Your task to perform on an android device: set an alarm Image 0: 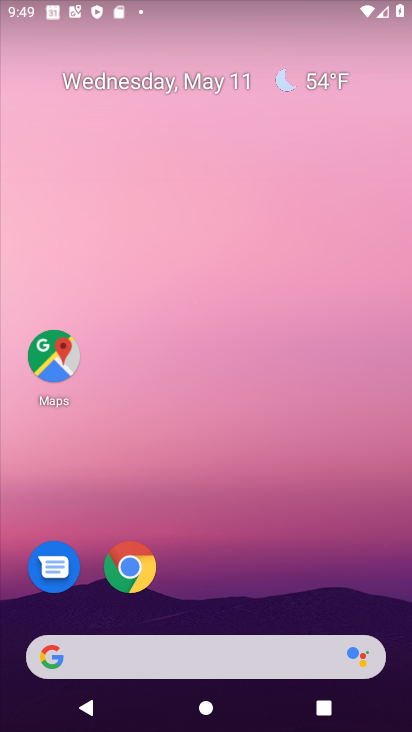
Step 0: drag from (248, 603) to (253, 331)
Your task to perform on an android device: set an alarm Image 1: 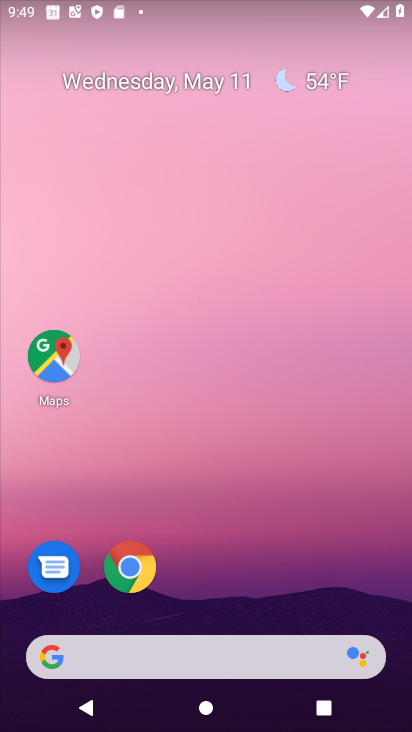
Step 1: drag from (237, 569) to (248, 49)
Your task to perform on an android device: set an alarm Image 2: 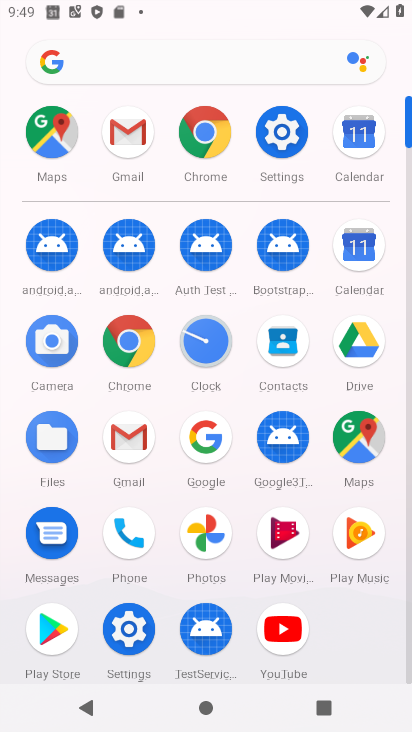
Step 2: click (203, 342)
Your task to perform on an android device: set an alarm Image 3: 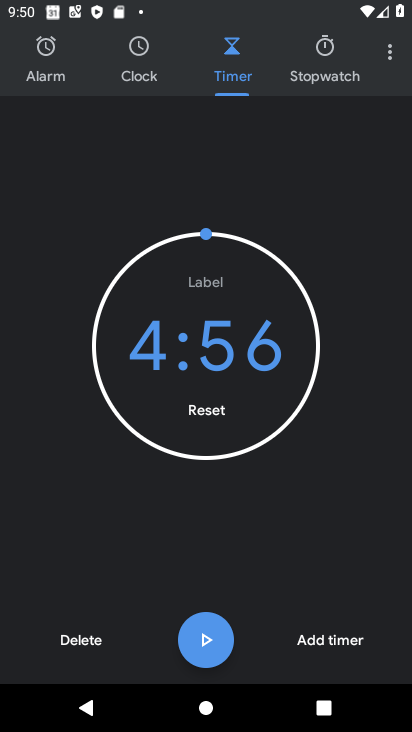
Step 3: click (58, 59)
Your task to perform on an android device: set an alarm Image 4: 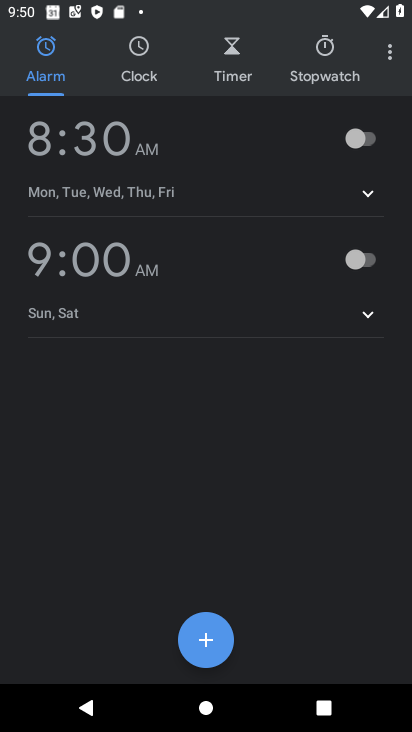
Step 4: click (110, 147)
Your task to perform on an android device: set an alarm Image 5: 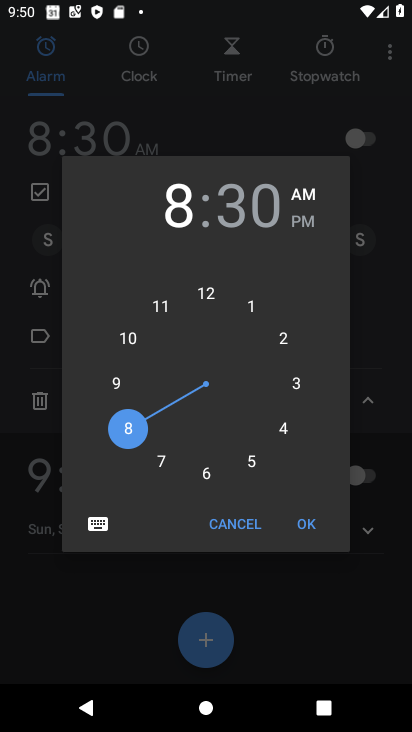
Step 5: click (160, 313)
Your task to perform on an android device: set an alarm Image 6: 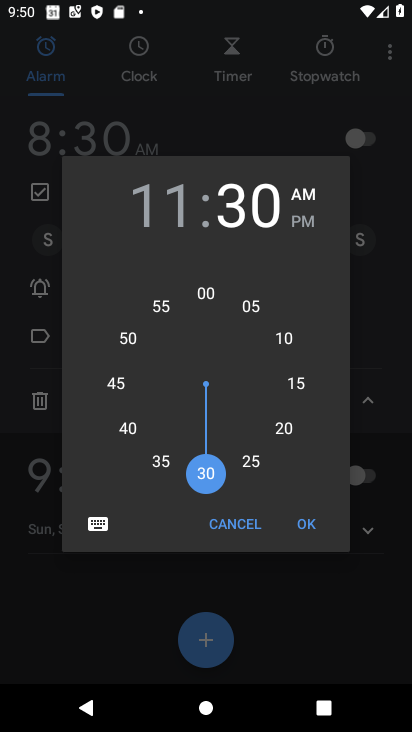
Step 6: click (280, 422)
Your task to perform on an android device: set an alarm Image 7: 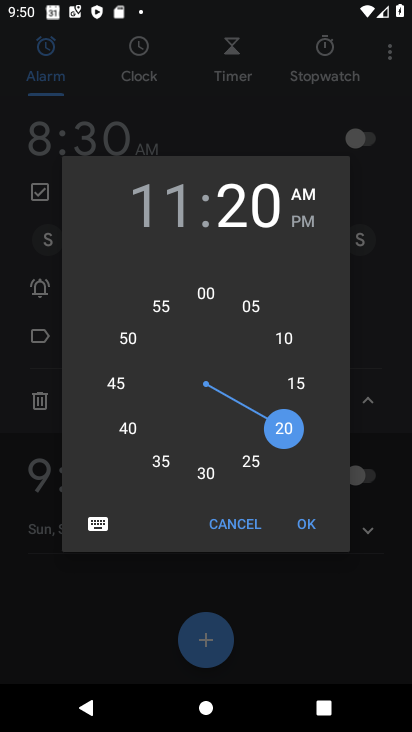
Step 7: click (307, 226)
Your task to perform on an android device: set an alarm Image 8: 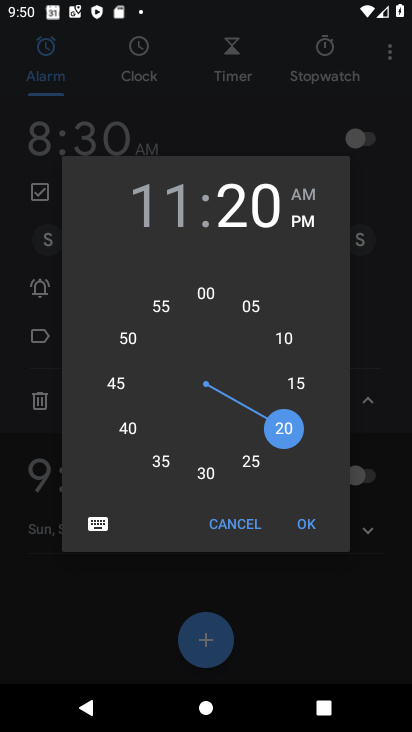
Step 8: click (299, 523)
Your task to perform on an android device: set an alarm Image 9: 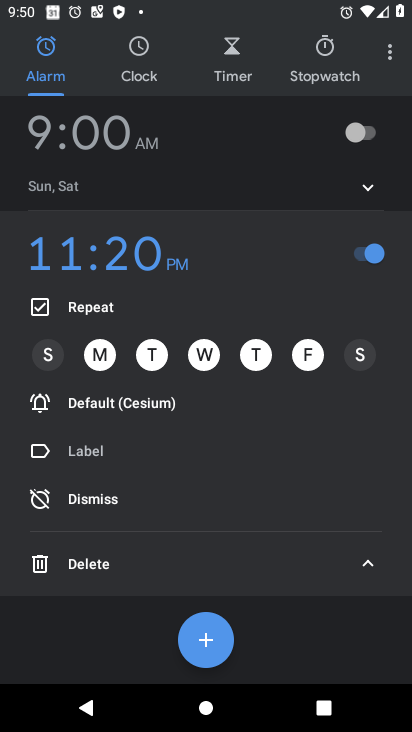
Step 9: task complete